Your task to perform on an android device: turn off priority inbox in the gmail app Image 0: 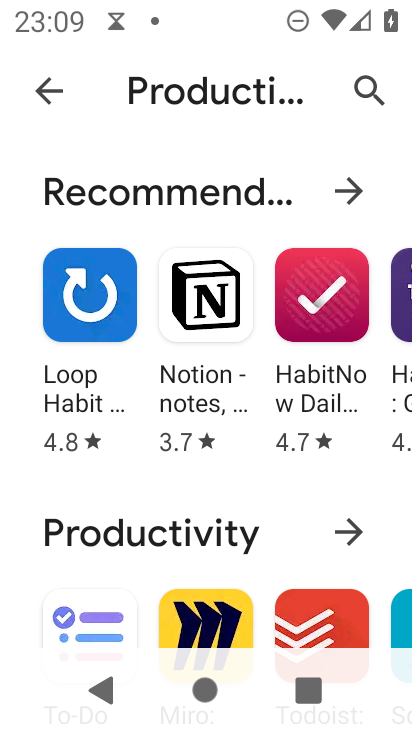
Step 0: drag from (235, 725) to (233, 234)
Your task to perform on an android device: turn off priority inbox in the gmail app Image 1: 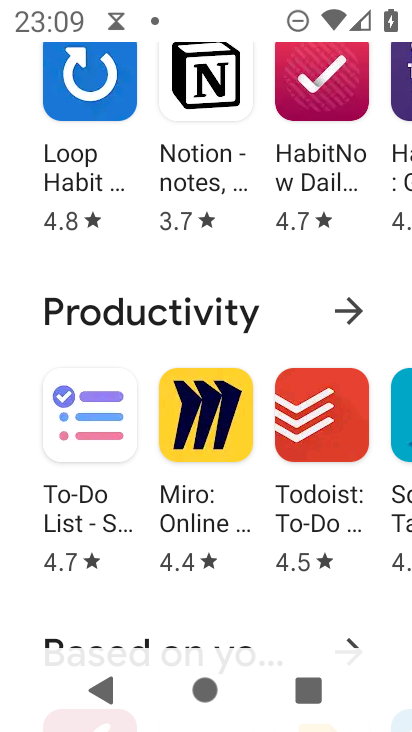
Step 1: press home button
Your task to perform on an android device: turn off priority inbox in the gmail app Image 2: 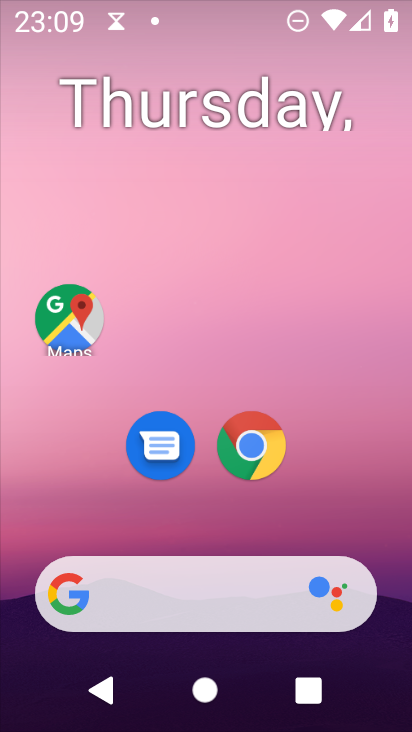
Step 2: drag from (234, 722) to (236, 113)
Your task to perform on an android device: turn off priority inbox in the gmail app Image 3: 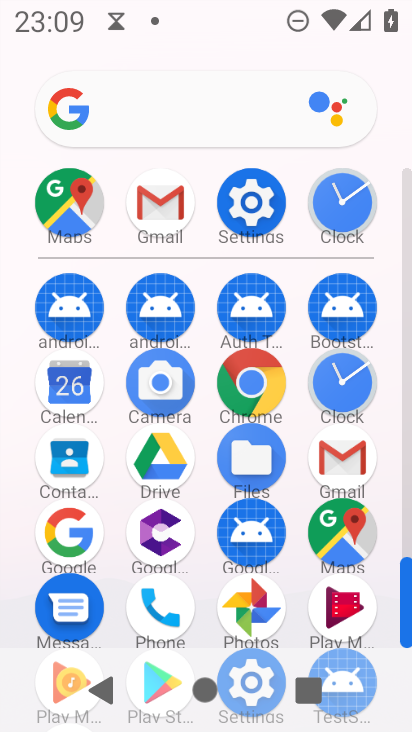
Step 3: click (345, 448)
Your task to perform on an android device: turn off priority inbox in the gmail app Image 4: 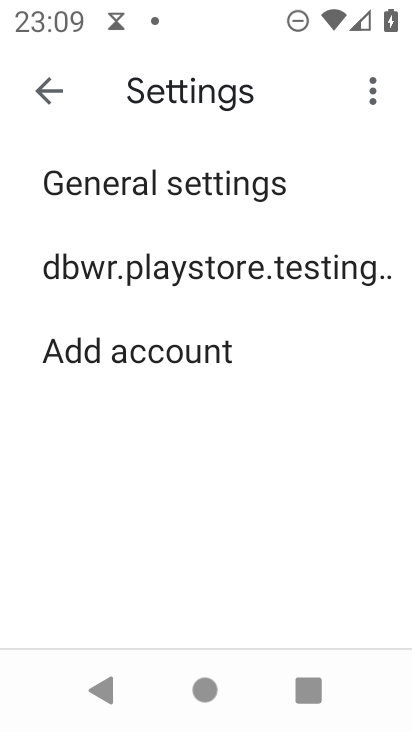
Step 4: click (253, 259)
Your task to perform on an android device: turn off priority inbox in the gmail app Image 5: 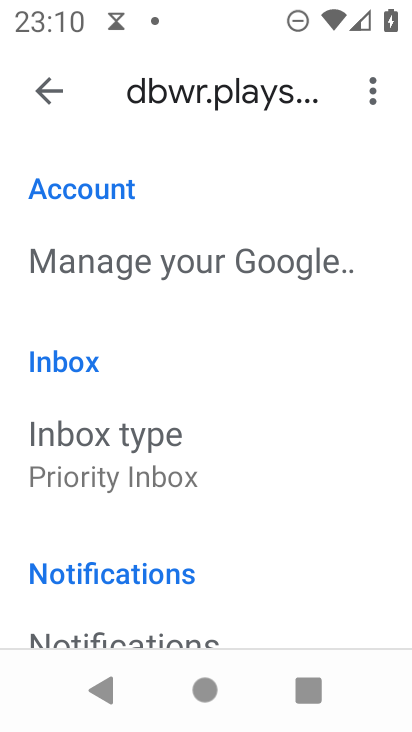
Step 5: drag from (179, 606) to (182, 369)
Your task to perform on an android device: turn off priority inbox in the gmail app Image 6: 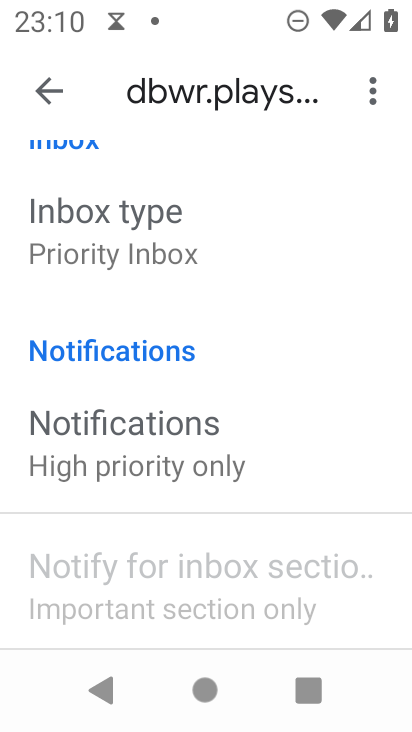
Step 6: click (126, 235)
Your task to perform on an android device: turn off priority inbox in the gmail app Image 7: 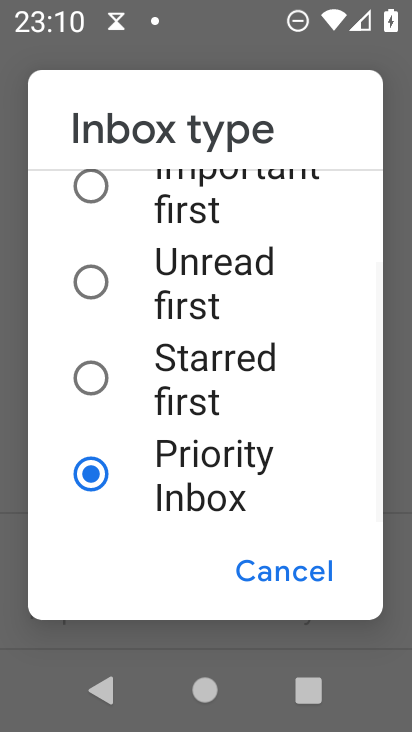
Step 7: click (91, 186)
Your task to perform on an android device: turn off priority inbox in the gmail app Image 8: 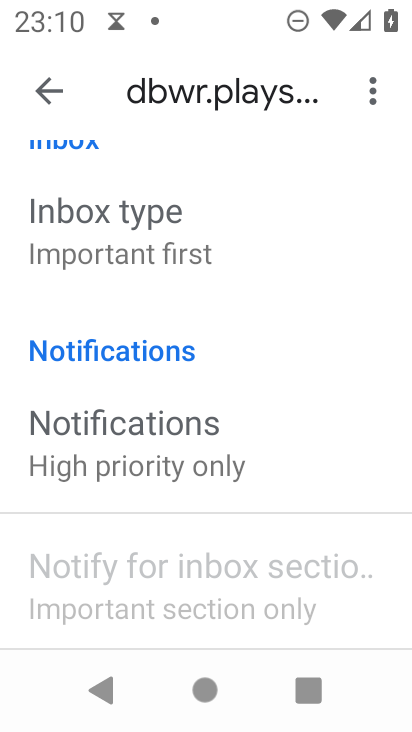
Step 8: task complete